Your task to perform on an android device: turn on airplane mode Image 0: 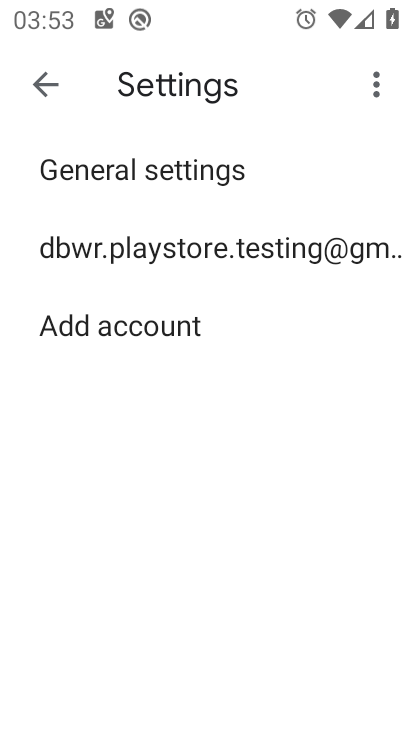
Step 0: click (28, 79)
Your task to perform on an android device: turn on airplane mode Image 1: 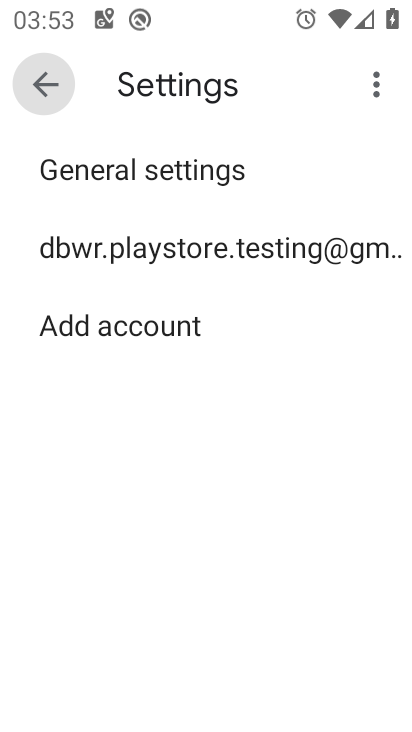
Step 1: click (34, 76)
Your task to perform on an android device: turn on airplane mode Image 2: 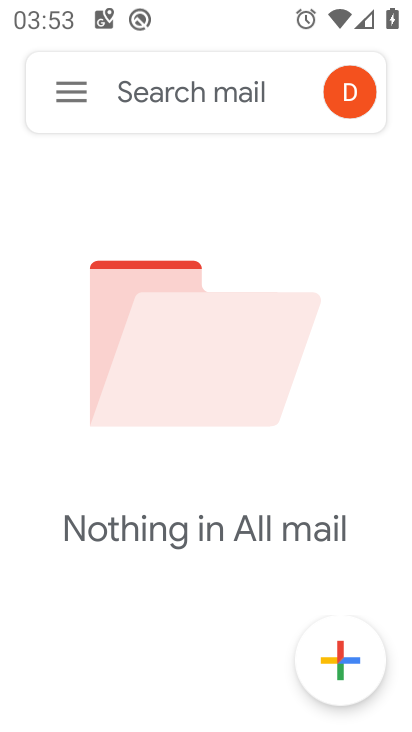
Step 2: press back button
Your task to perform on an android device: turn on airplane mode Image 3: 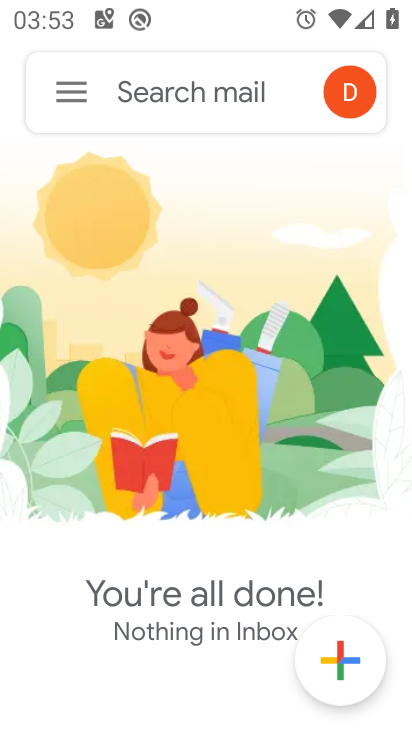
Step 3: click (69, 81)
Your task to perform on an android device: turn on airplane mode Image 4: 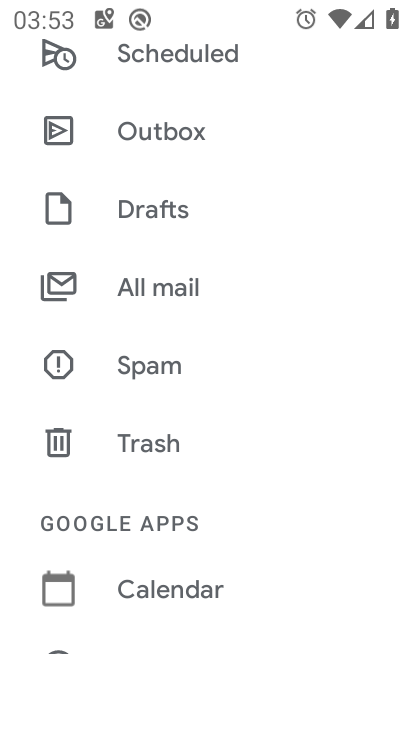
Step 4: drag from (180, 590) to (136, 121)
Your task to perform on an android device: turn on airplane mode Image 5: 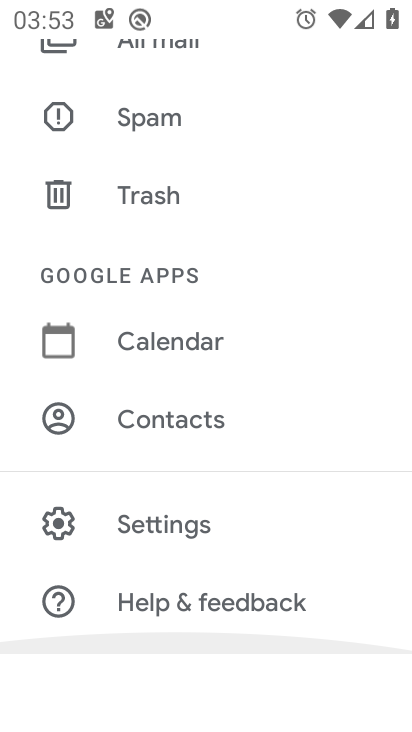
Step 5: drag from (194, 425) to (140, 96)
Your task to perform on an android device: turn on airplane mode Image 6: 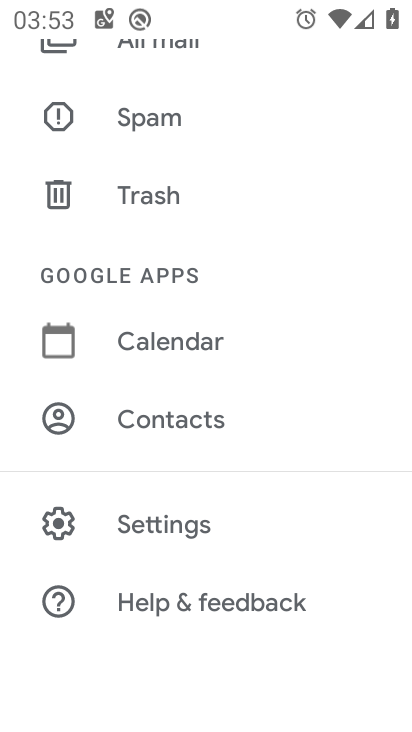
Step 6: click (148, 519)
Your task to perform on an android device: turn on airplane mode Image 7: 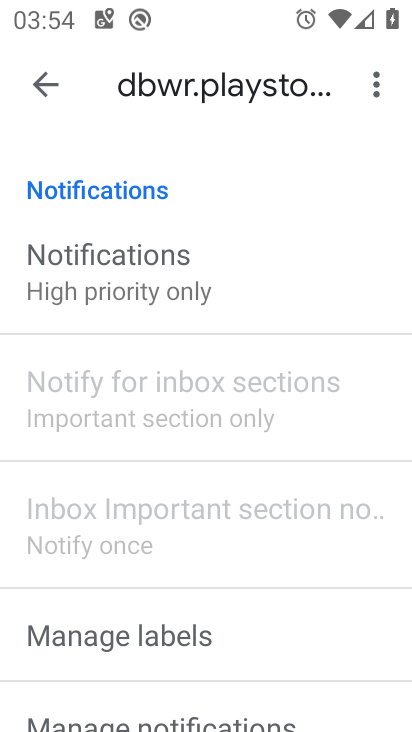
Step 7: drag from (120, 500) to (26, 16)
Your task to perform on an android device: turn on airplane mode Image 8: 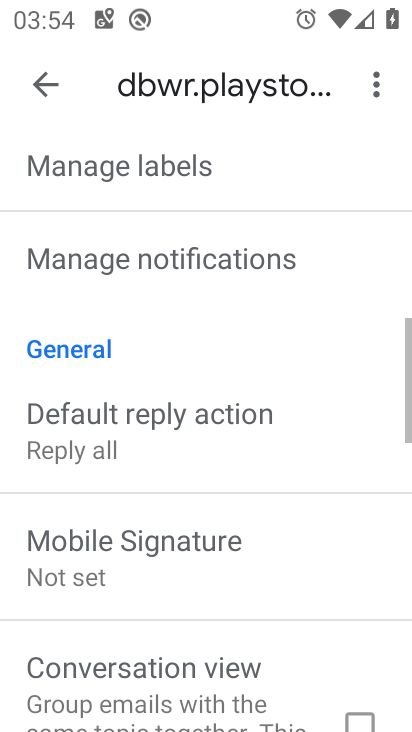
Step 8: drag from (117, 365) to (44, 54)
Your task to perform on an android device: turn on airplane mode Image 9: 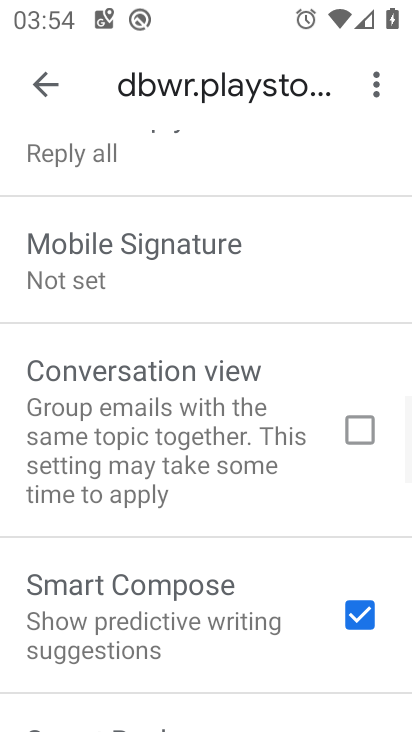
Step 9: drag from (125, 379) to (134, 147)
Your task to perform on an android device: turn on airplane mode Image 10: 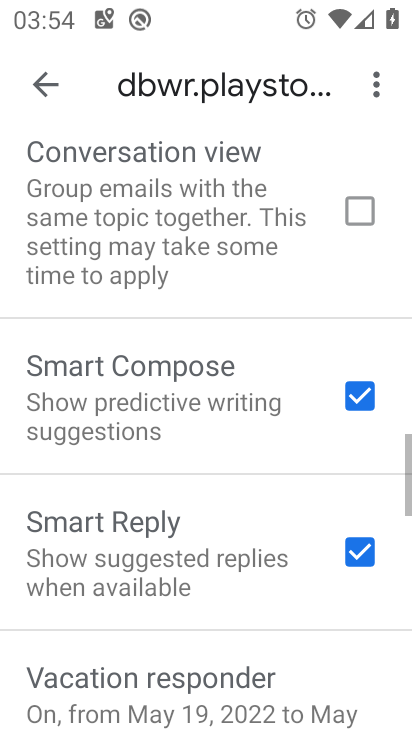
Step 10: drag from (206, 449) to (232, 19)
Your task to perform on an android device: turn on airplane mode Image 11: 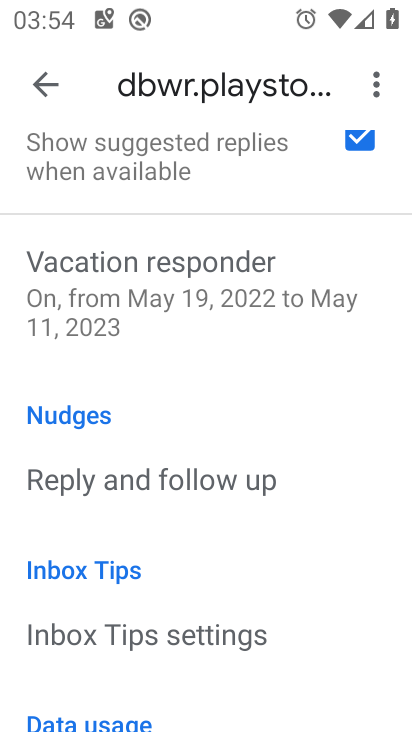
Step 11: drag from (98, 235) to (170, 544)
Your task to perform on an android device: turn on airplane mode Image 12: 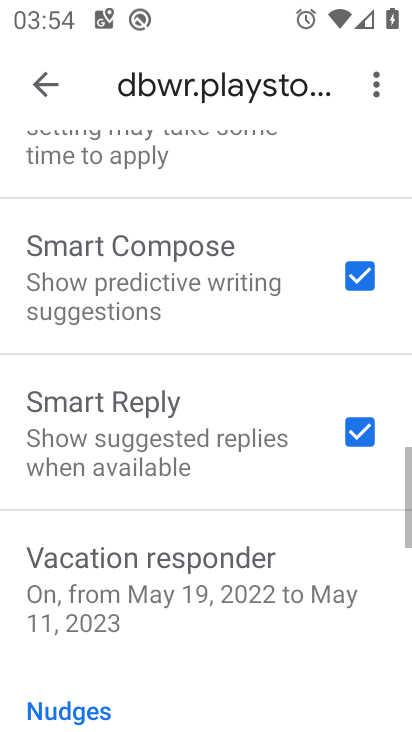
Step 12: drag from (109, 254) to (165, 548)
Your task to perform on an android device: turn on airplane mode Image 13: 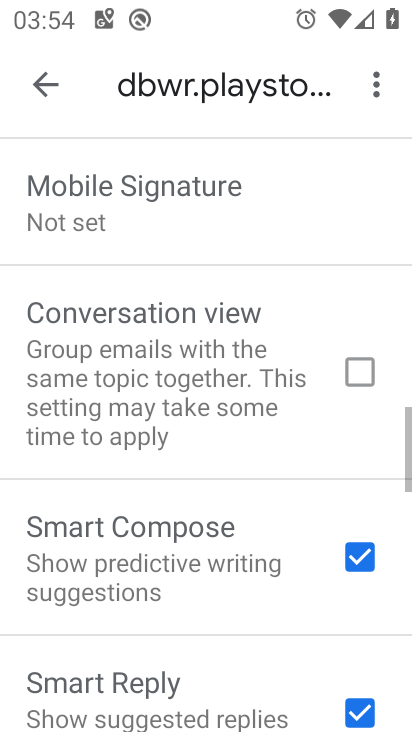
Step 13: drag from (121, 298) to (142, 506)
Your task to perform on an android device: turn on airplane mode Image 14: 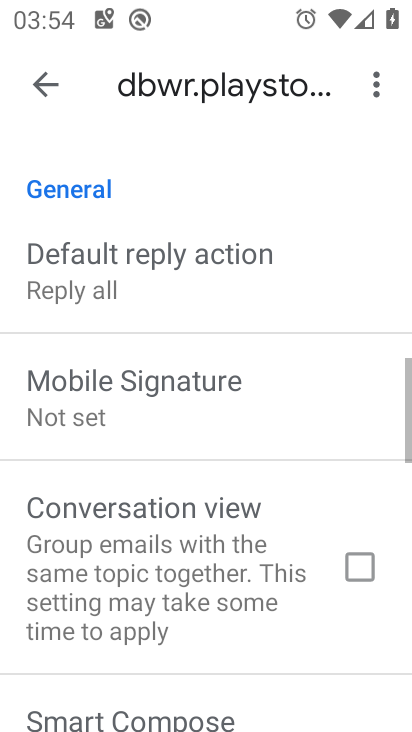
Step 14: click (114, 448)
Your task to perform on an android device: turn on airplane mode Image 15: 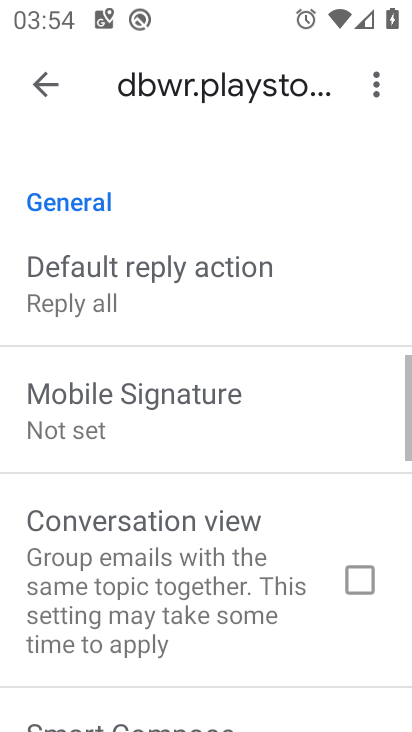
Step 15: drag from (114, 285) to (140, 431)
Your task to perform on an android device: turn on airplane mode Image 16: 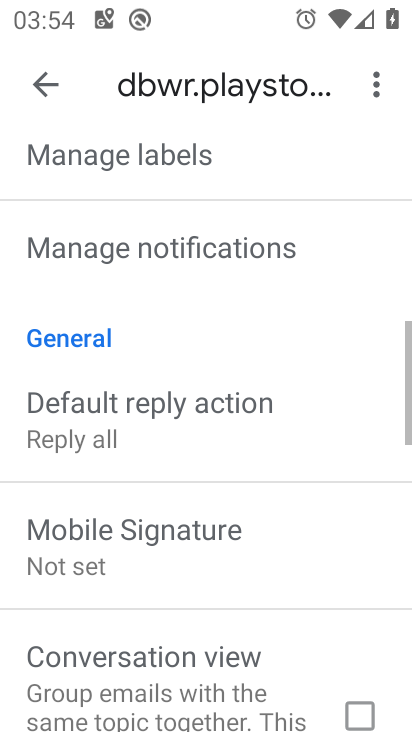
Step 16: drag from (104, 281) to (156, 493)
Your task to perform on an android device: turn on airplane mode Image 17: 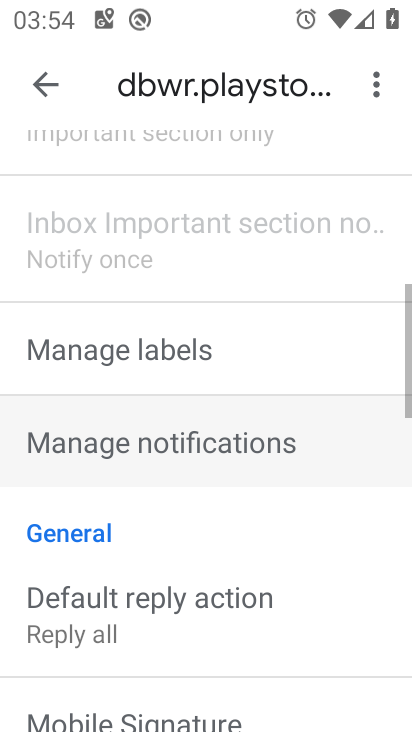
Step 17: drag from (152, 372) to (162, 433)
Your task to perform on an android device: turn on airplane mode Image 18: 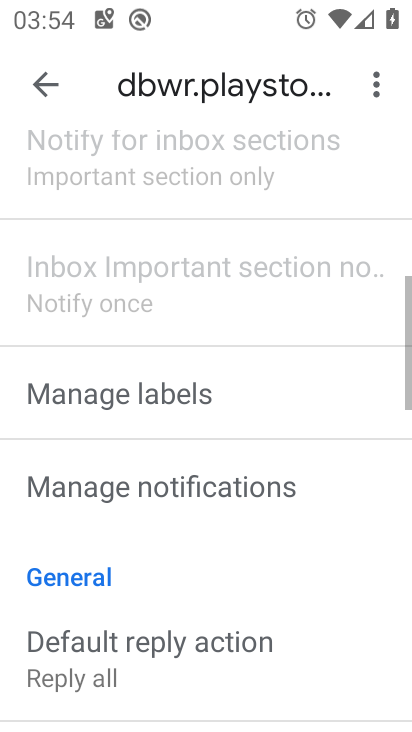
Step 18: drag from (107, 290) to (143, 399)
Your task to perform on an android device: turn on airplane mode Image 19: 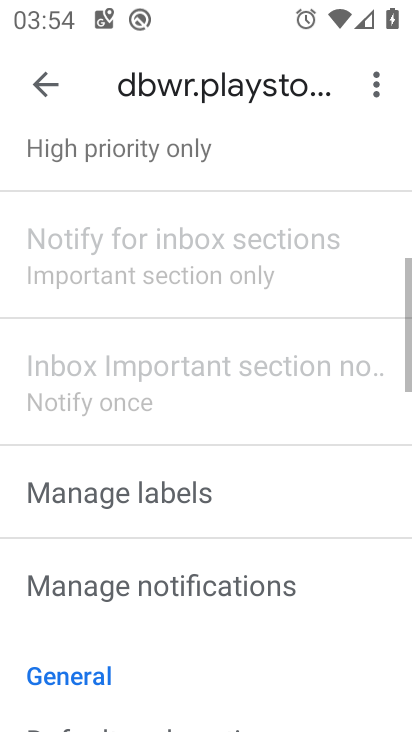
Step 19: drag from (68, 228) to (132, 465)
Your task to perform on an android device: turn on airplane mode Image 20: 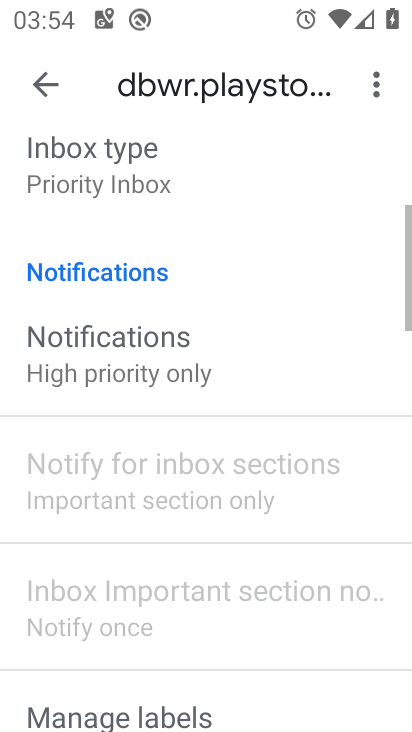
Step 20: drag from (32, 216) to (136, 428)
Your task to perform on an android device: turn on airplane mode Image 21: 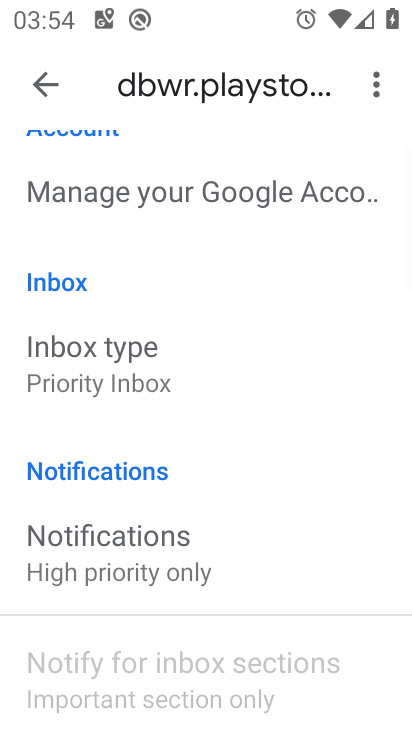
Step 21: drag from (112, 235) to (152, 388)
Your task to perform on an android device: turn on airplane mode Image 22: 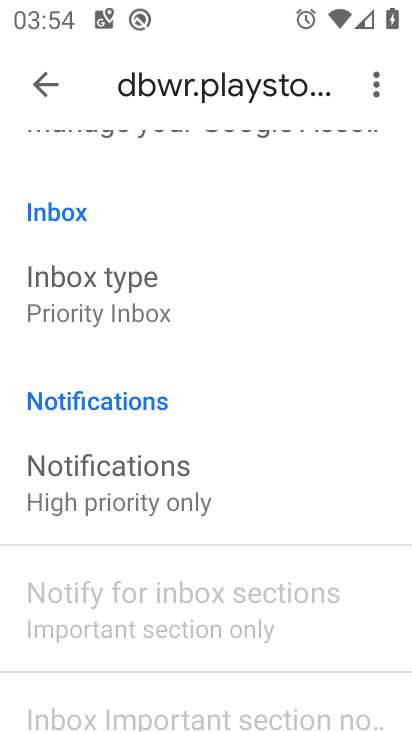
Step 22: drag from (81, 289) to (158, 463)
Your task to perform on an android device: turn on airplane mode Image 23: 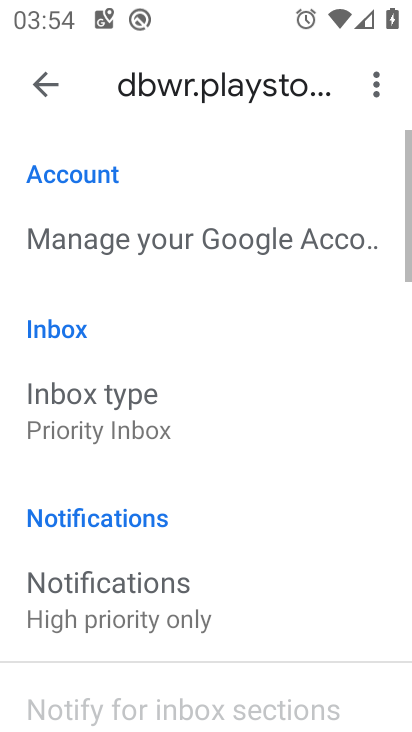
Step 23: drag from (137, 190) to (149, 421)
Your task to perform on an android device: turn on airplane mode Image 24: 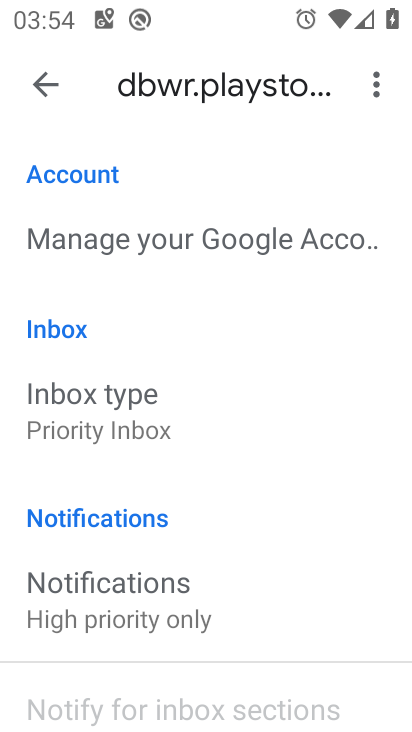
Step 24: drag from (123, 186) to (159, 379)
Your task to perform on an android device: turn on airplane mode Image 25: 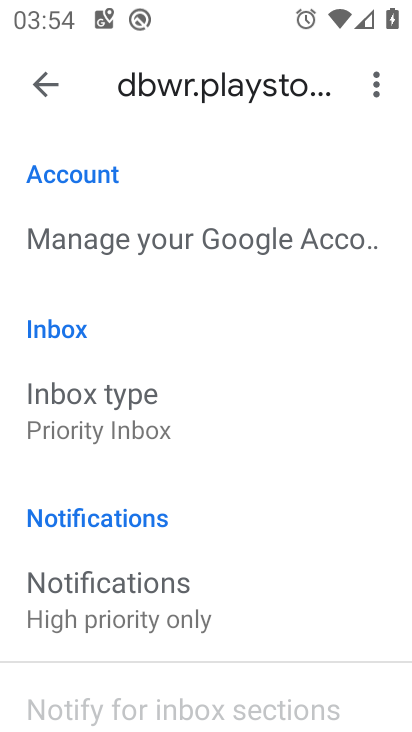
Step 25: drag from (148, 477) to (117, 140)
Your task to perform on an android device: turn on airplane mode Image 26: 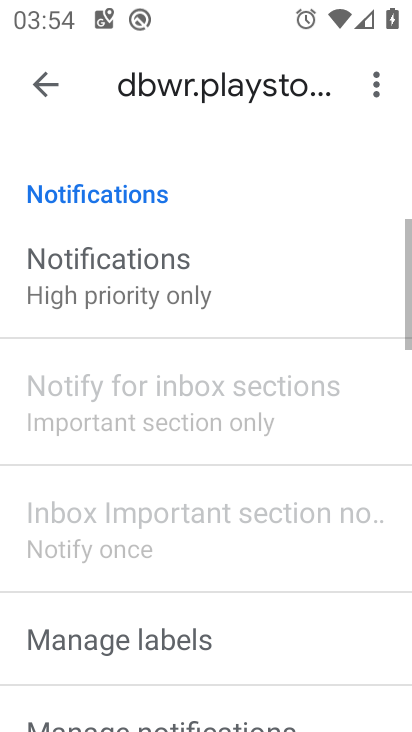
Step 26: drag from (125, 364) to (141, 3)
Your task to perform on an android device: turn on airplane mode Image 27: 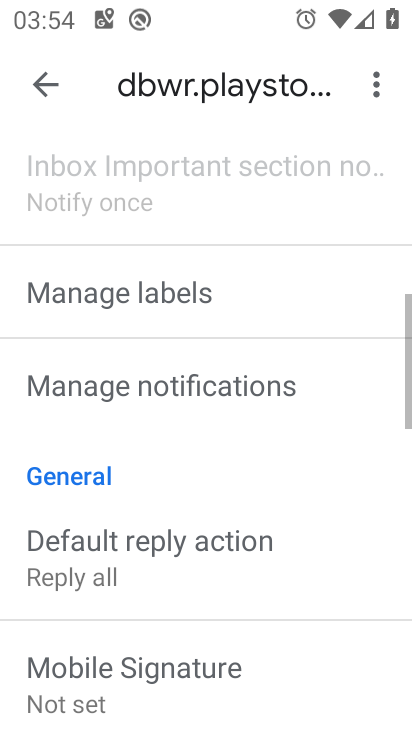
Step 27: click (171, 298)
Your task to perform on an android device: turn on airplane mode Image 28: 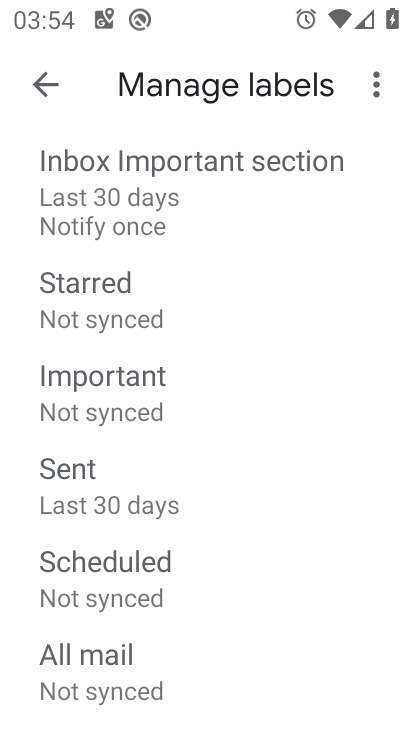
Step 28: click (31, 72)
Your task to perform on an android device: turn on airplane mode Image 29: 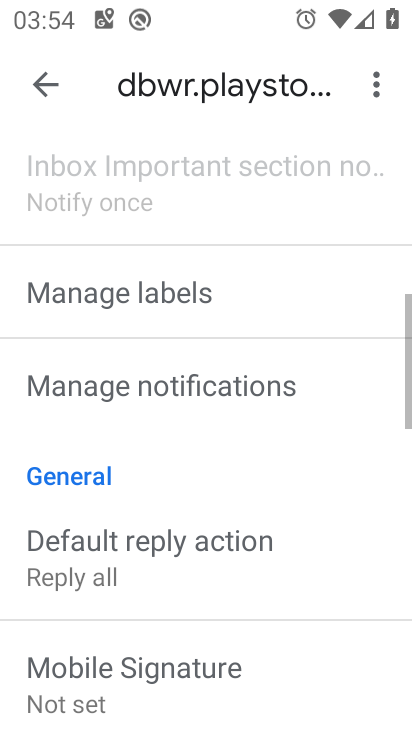
Step 29: press back button
Your task to perform on an android device: turn on airplane mode Image 30: 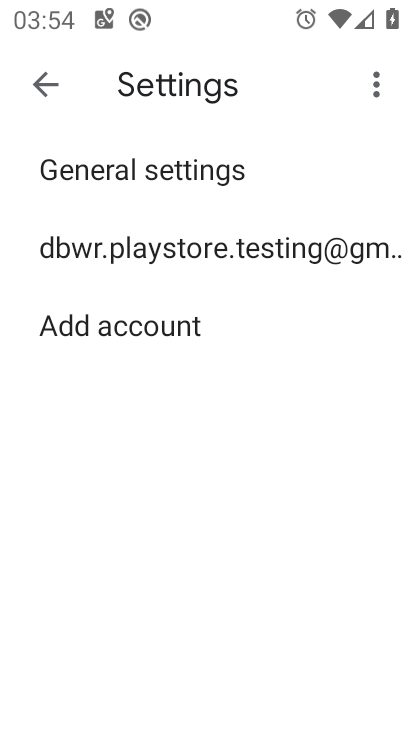
Step 30: click (38, 90)
Your task to perform on an android device: turn on airplane mode Image 31: 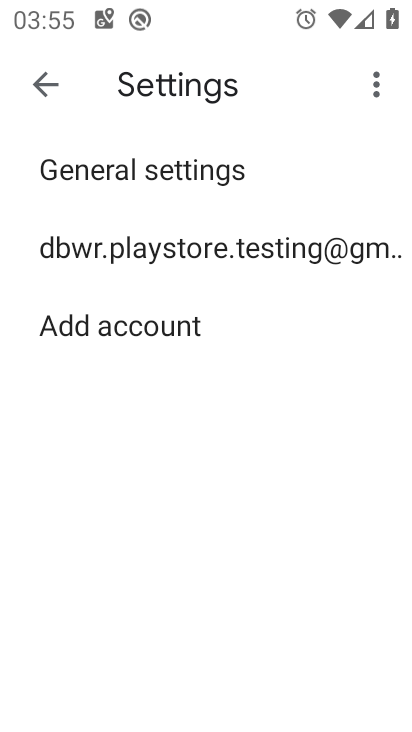
Step 31: click (43, 84)
Your task to perform on an android device: turn on airplane mode Image 32: 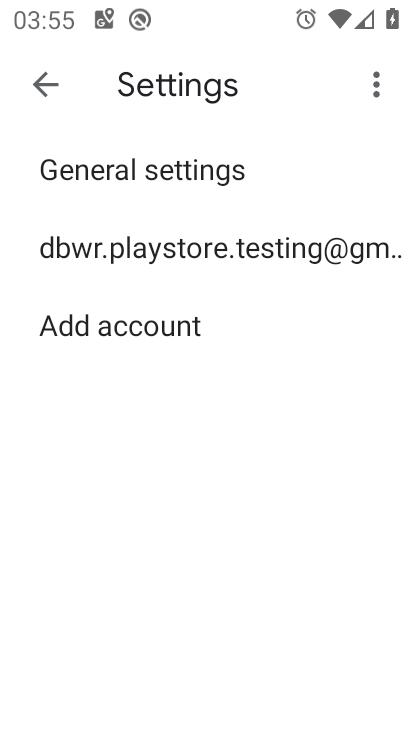
Step 32: click (43, 84)
Your task to perform on an android device: turn on airplane mode Image 33: 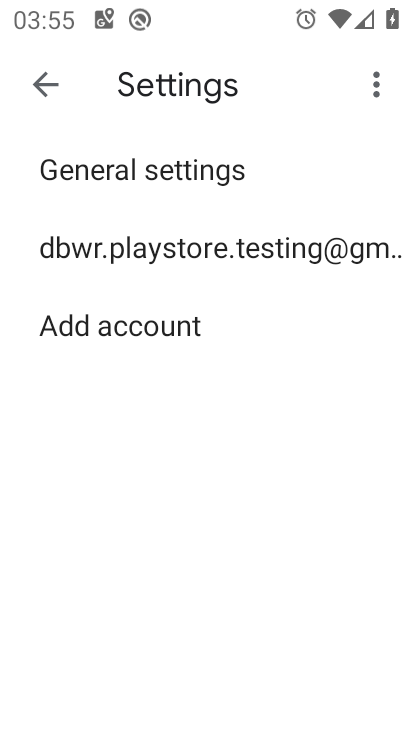
Step 33: click (43, 84)
Your task to perform on an android device: turn on airplane mode Image 34: 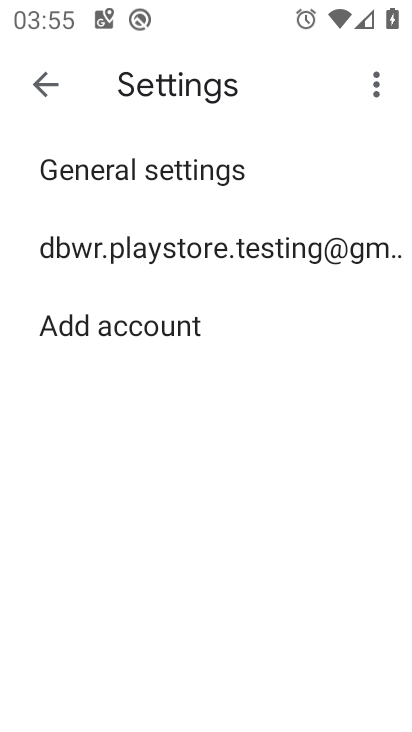
Step 34: click (44, 83)
Your task to perform on an android device: turn on airplane mode Image 35: 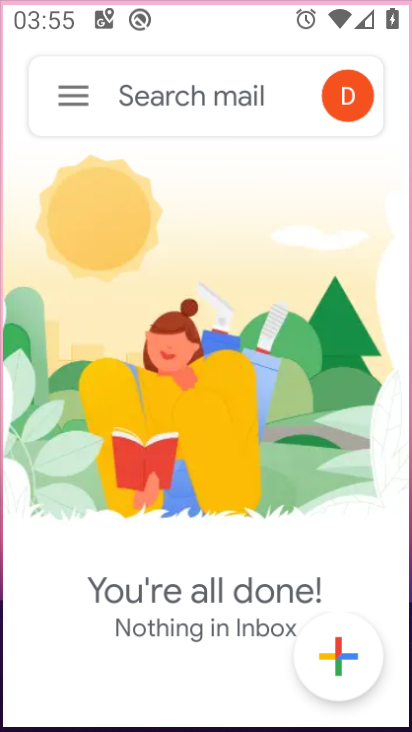
Step 35: click (44, 83)
Your task to perform on an android device: turn on airplane mode Image 36: 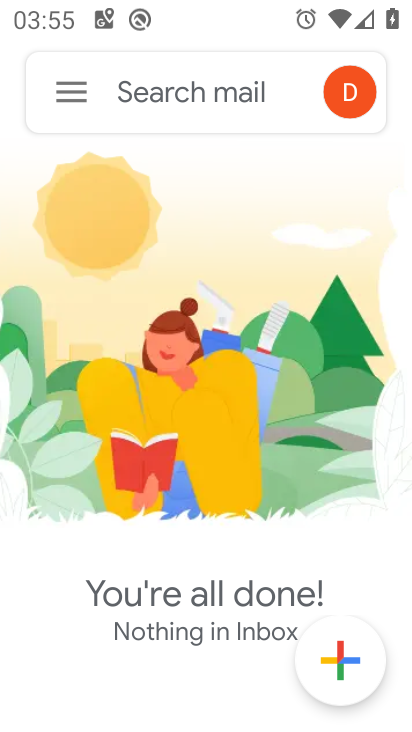
Step 36: click (44, 83)
Your task to perform on an android device: turn on airplane mode Image 37: 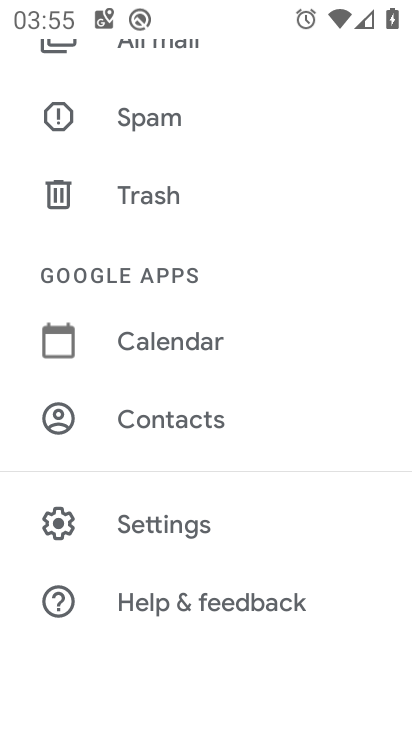
Step 37: drag from (214, 412) to (125, 75)
Your task to perform on an android device: turn on airplane mode Image 38: 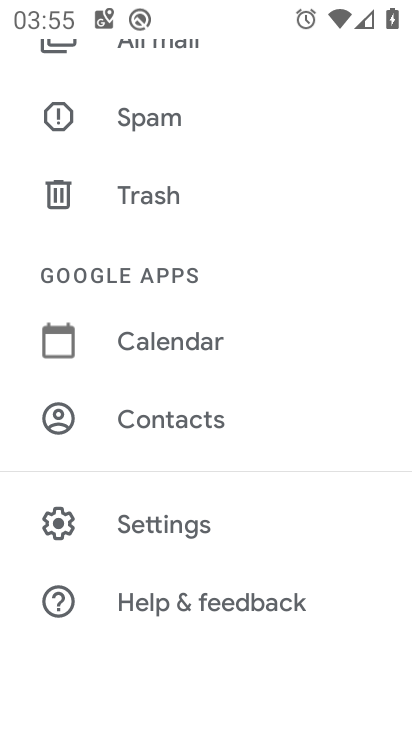
Step 38: drag from (226, 377) to (178, 10)
Your task to perform on an android device: turn on airplane mode Image 39: 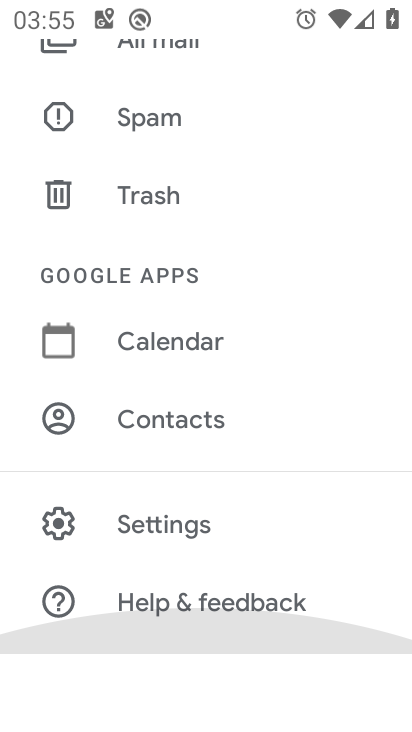
Step 39: drag from (184, 338) to (219, 10)
Your task to perform on an android device: turn on airplane mode Image 40: 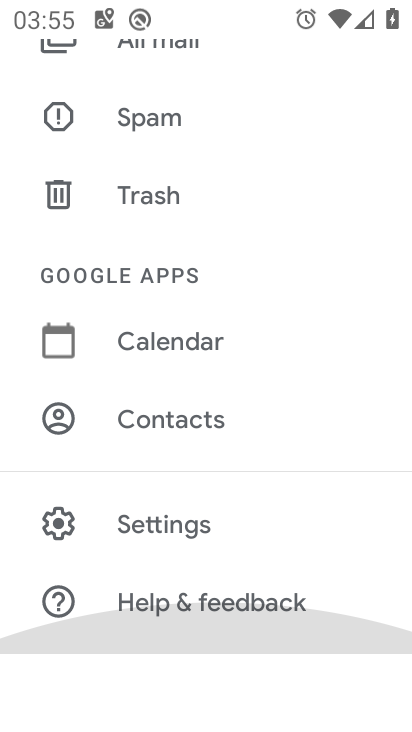
Step 40: drag from (263, 350) to (213, 19)
Your task to perform on an android device: turn on airplane mode Image 41: 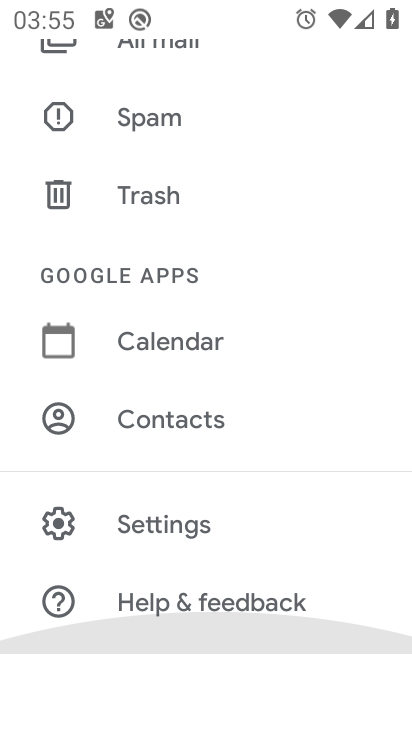
Step 41: drag from (226, 389) to (203, 30)
Your task to perform on an android device: turn on airplane mode Image 42: 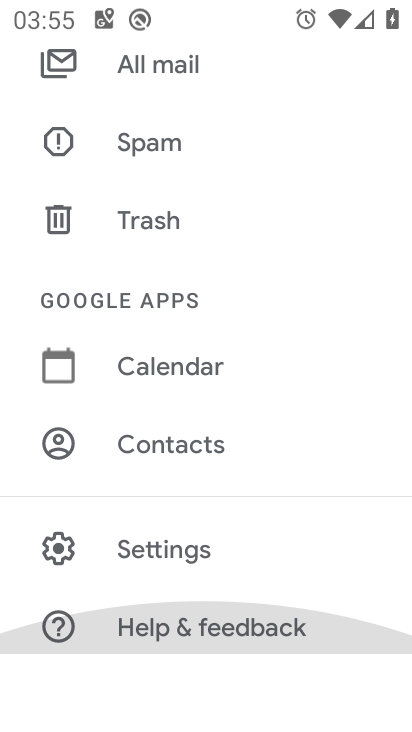
Step 42: drag from (306, 398) to (236, 6)
Your task to perform on an android device: turn on airplane mode Image 43: 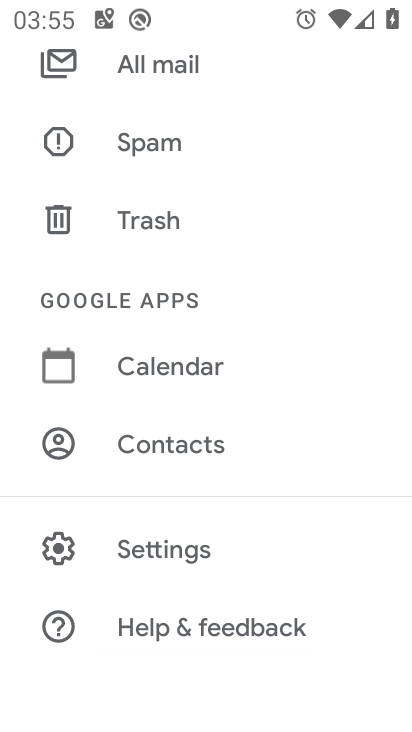
Step 43: drag from (237, 391) to (186, 12)
Your task to perform on an android device: turn on airplane mode Image 44: 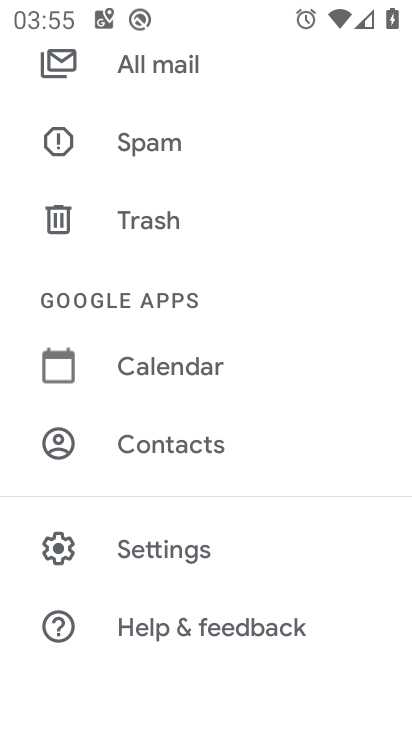
Step 44: click (147, 533)
Your task to perform on an android device: turn on airplane mode Image 45: 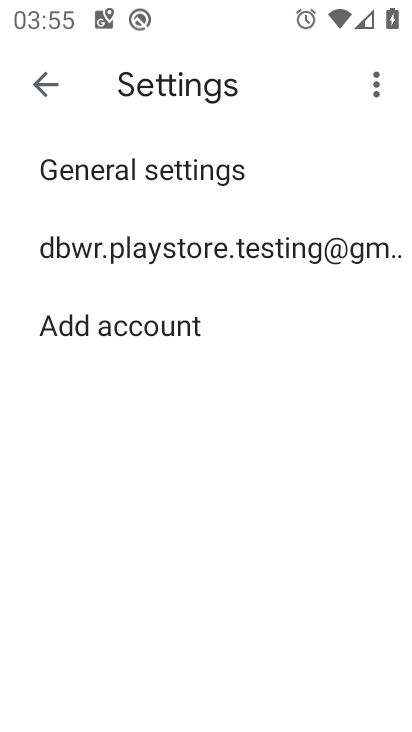
Step 45: click (137, 246)
Your task to perform on an android device: turn on airplane mode Image 46: 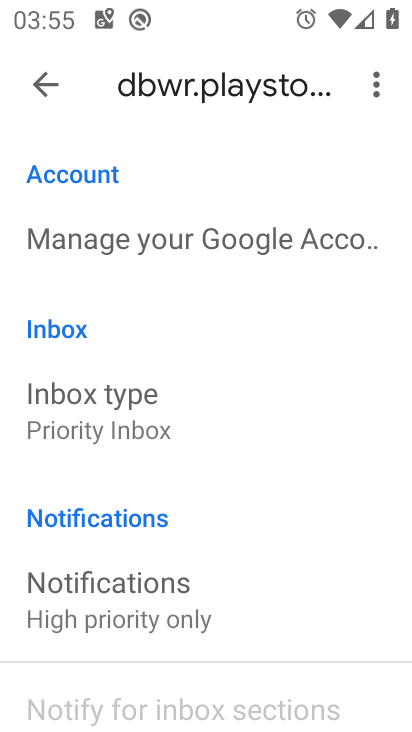
Step 46: click (33, 88)
Your task to perform on an android device: turn on airplane mode Image 47: 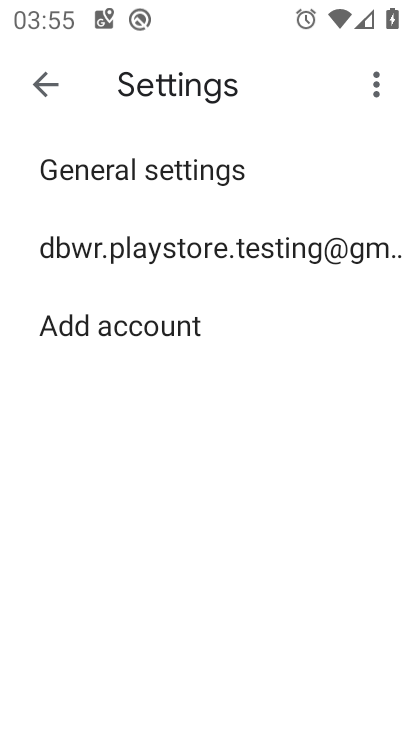
Step 47: click (30, 81)
Your task to perform on an android device: turn on airplane mode Image 48: 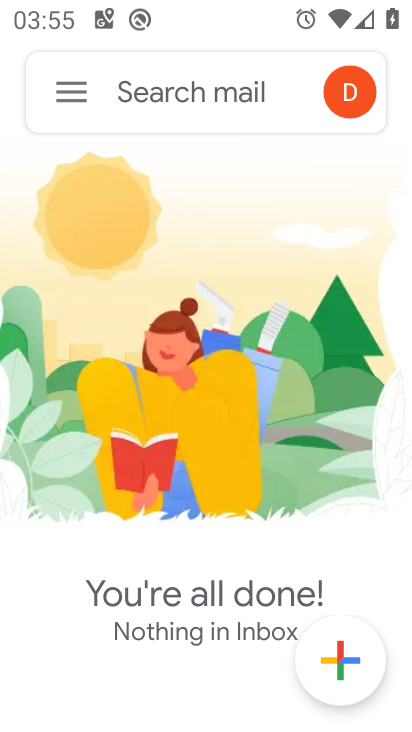
Step 48: press back button
Your task to perform on an android device: turn on airplane mode Image 49: 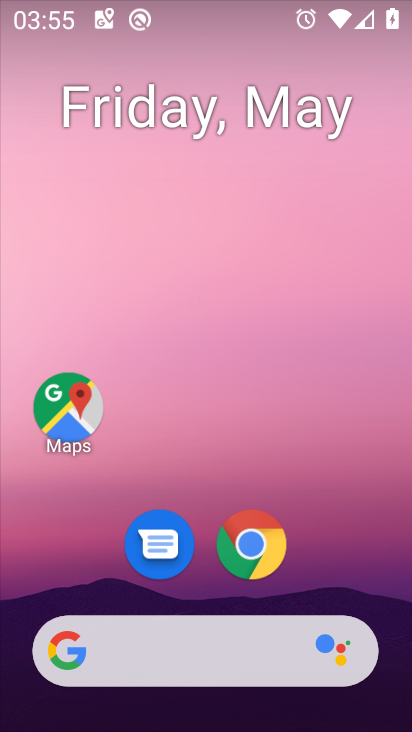
Step 49: drag from (268, 658) to (133, 6)
Your task to perform on an android device: turn on airplane mode Image 50: 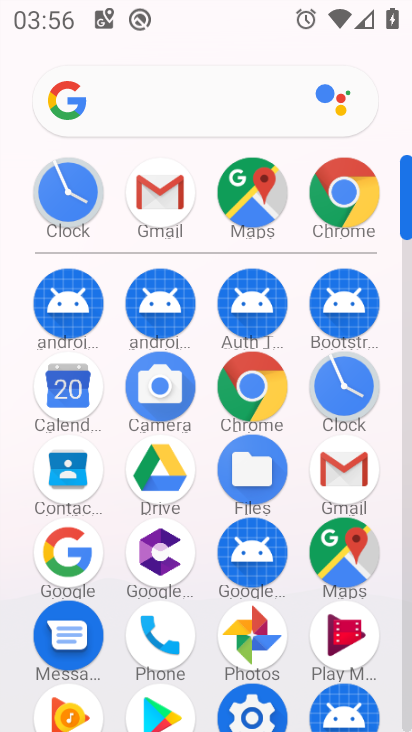
Step 50: click (247, 714)
Your task to perform on an android device: turn on airplane mode Image 51: 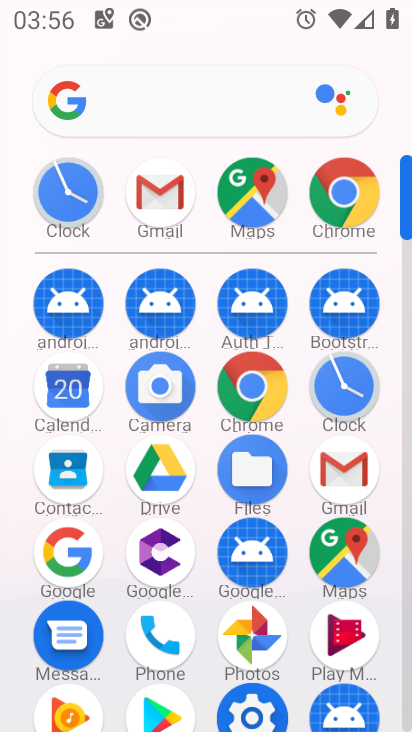
Step 51: click (246, 713)
Your task to perform on an android device: turn on airplane mode Image 52: 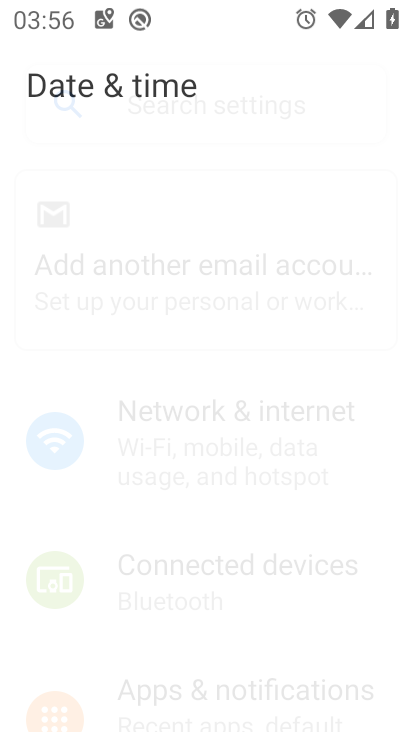
Step 52: click (246, 713)
Your task to perform on an android device: turn on airplane mode Image 53: 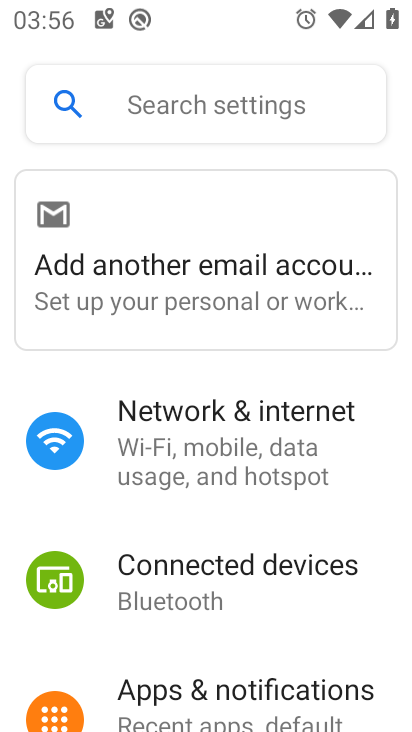
Step 53: click (243, 709)
Your task to perform on an android device: turn on airplane mode Image 54: 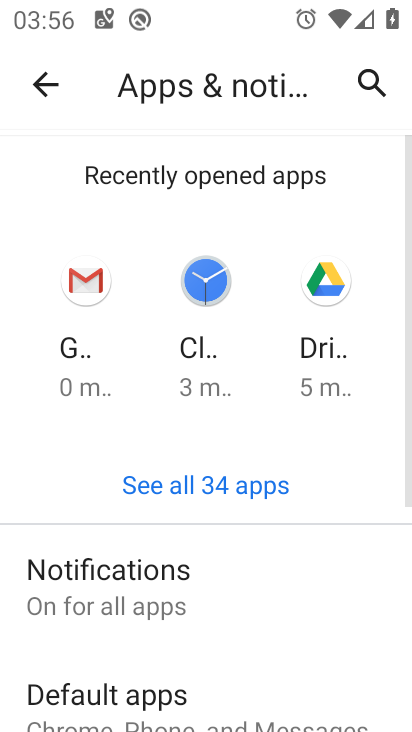
Step 54: drag from (209, 680) to (121, 83)
Your task to perform on an android device: turn on airplane mode Image 55: 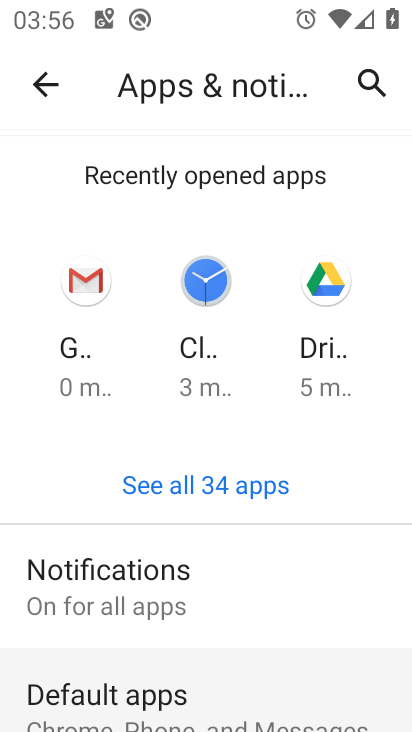
Step 55: drag from (198, 452) to (162, 23)
Your task to perform on an android device: turn on airplane mode Image 56: 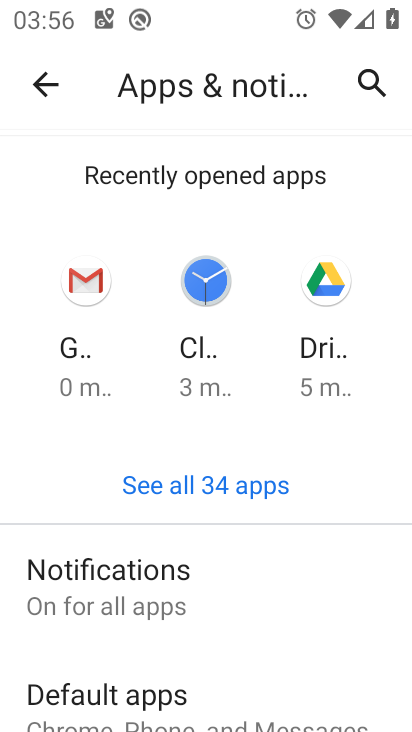
Step 56: drag from (214, 460) to (173, 105)
Your task to perform on an android device: turn on airplane mode Image 57: 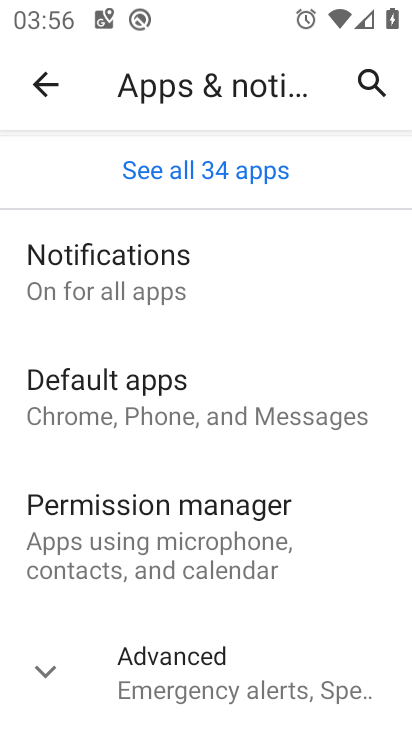
Step 57: press home button
Your task to perform on an android device: turn on airplane mode Image 58: 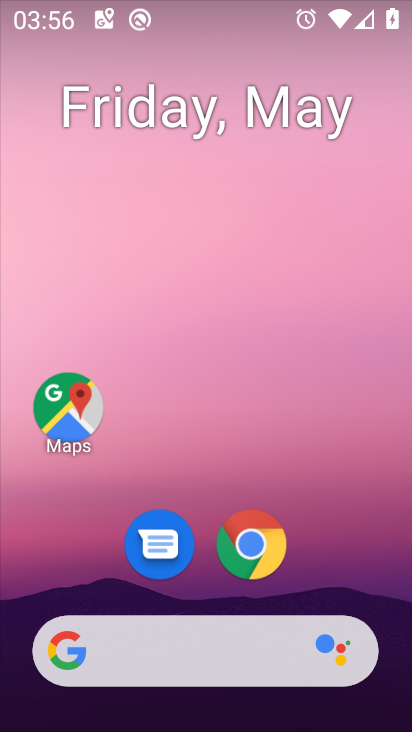
Step 58: drag from (290, 690) to (185, 78)
Your task to perform on an android device: turn on airplane mode Image 59: 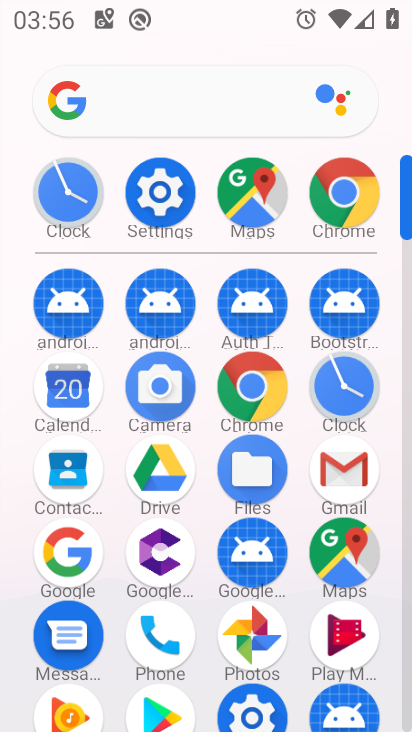
Step 59: click (161, 207)
Your task to perform on an android device: turn on airplane mode Image 60: 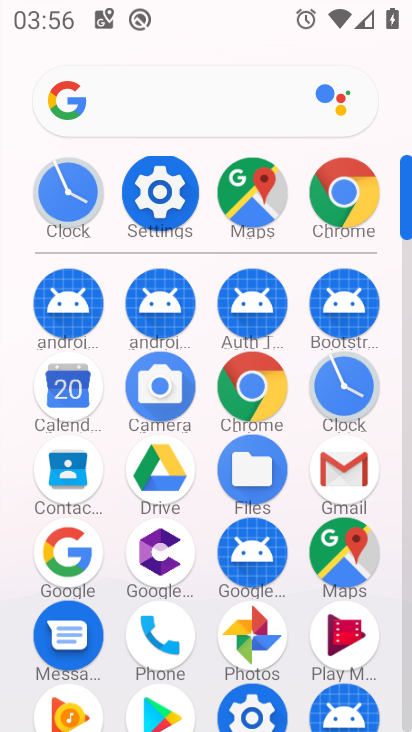
Step 60: click (161, 205)
Your task to perform on an android device: turn on airplane mode Image 61: 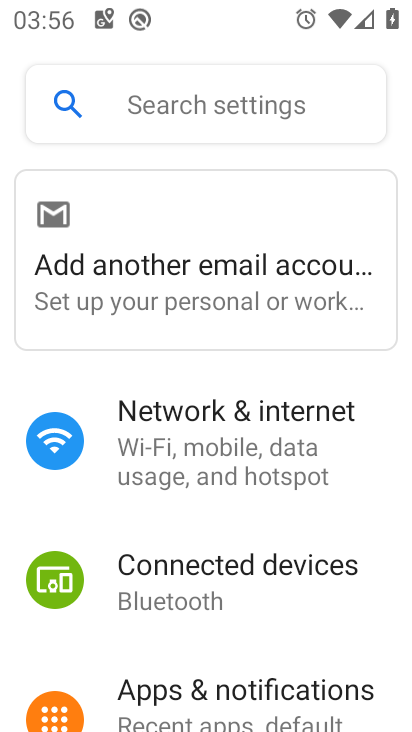
Step 61: click (185, 438)
Your task to perform on an android device: turn on airplane mode Image 62: 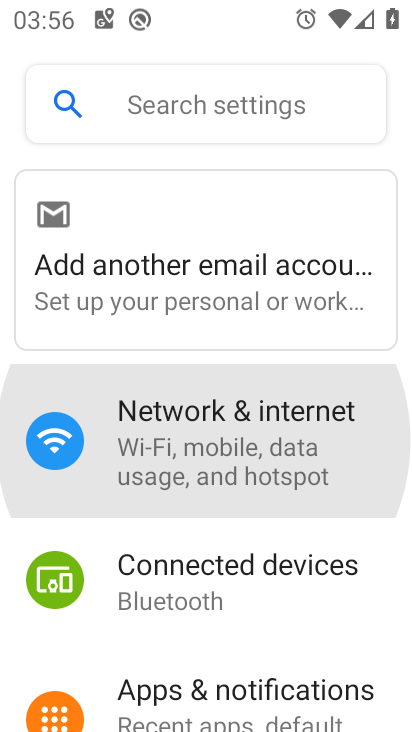
Step 62: click (185, 438)
Your task to perform on an android device: turn on airplane mode Image 63: 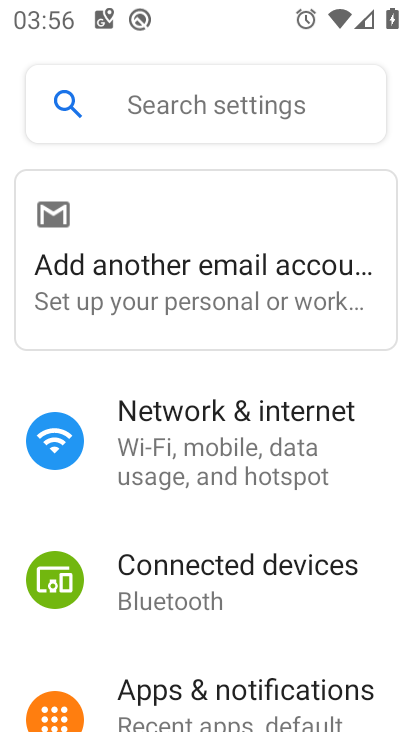
Step 63: click (193, 448)
Your task to perform on an android device: turn on airplane mode Image 64: 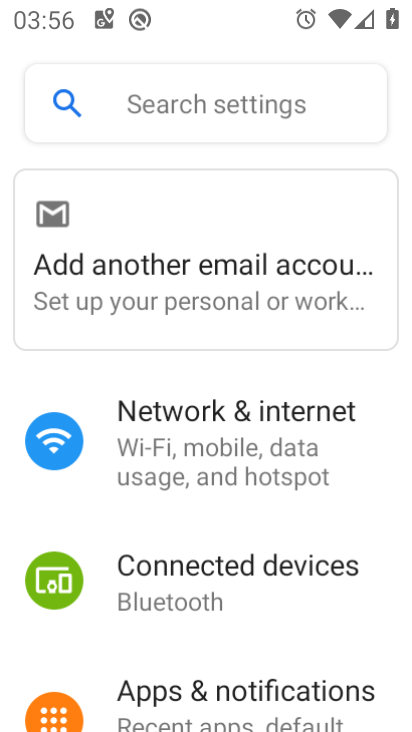
Step 64: click (225, 471)
Your task to perform on an android device: turn on airplane mode Image 65: 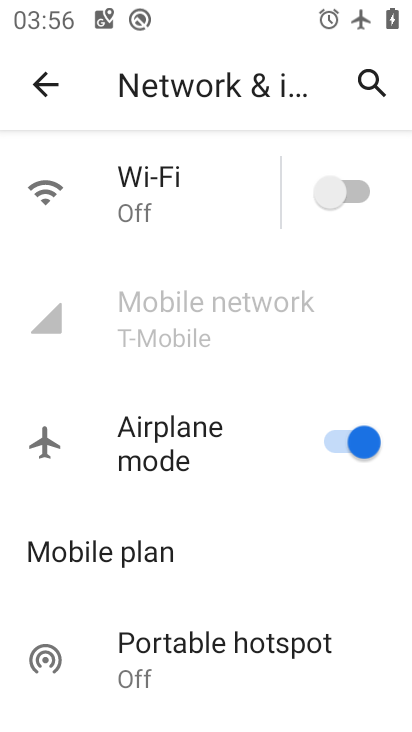
Step 65: click (320, 192)
Your task to perform on an android device: turn on airplane mode Image 66: 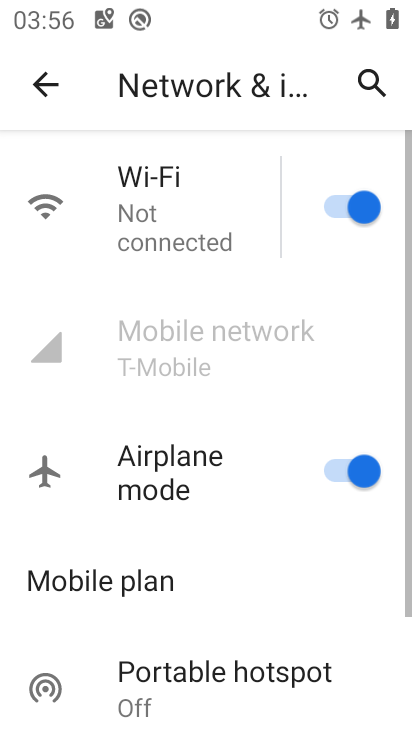
Step 66: click (356, 487)
Your task to perform on an android device: turn on airplane mode Image 67: 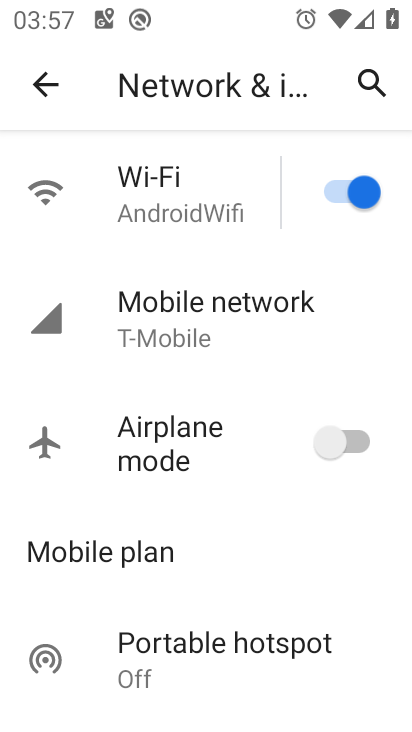
Step 67: task complete